Your task to perform on an android device: check the backup settings in the google photos Image 0: 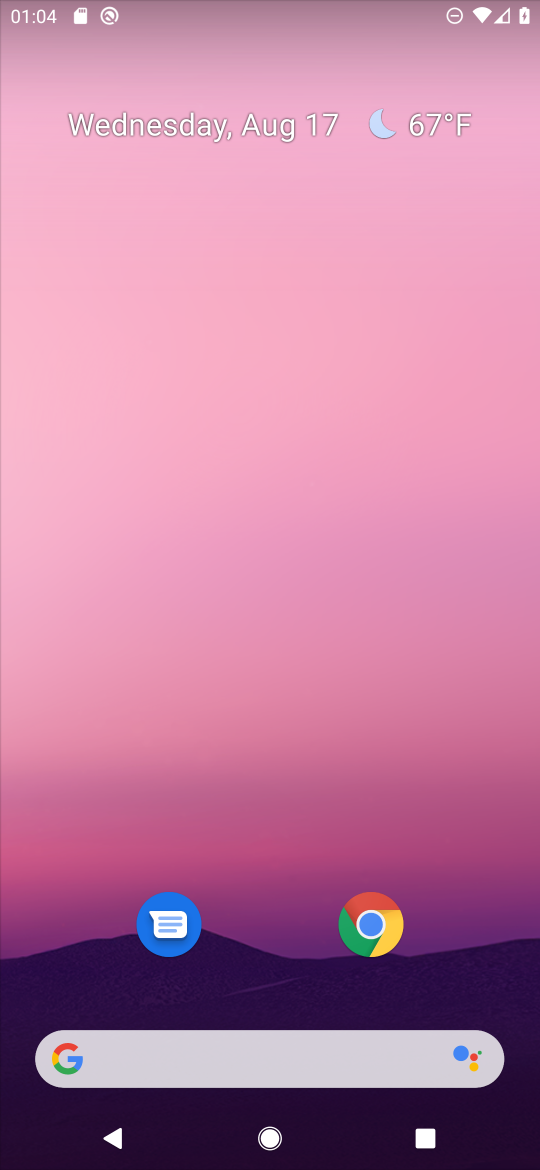
Step 0: drag from (311, 990) to (325, 136)
Your task to perform on an android device: check the backup settings in the google photos Image 1: 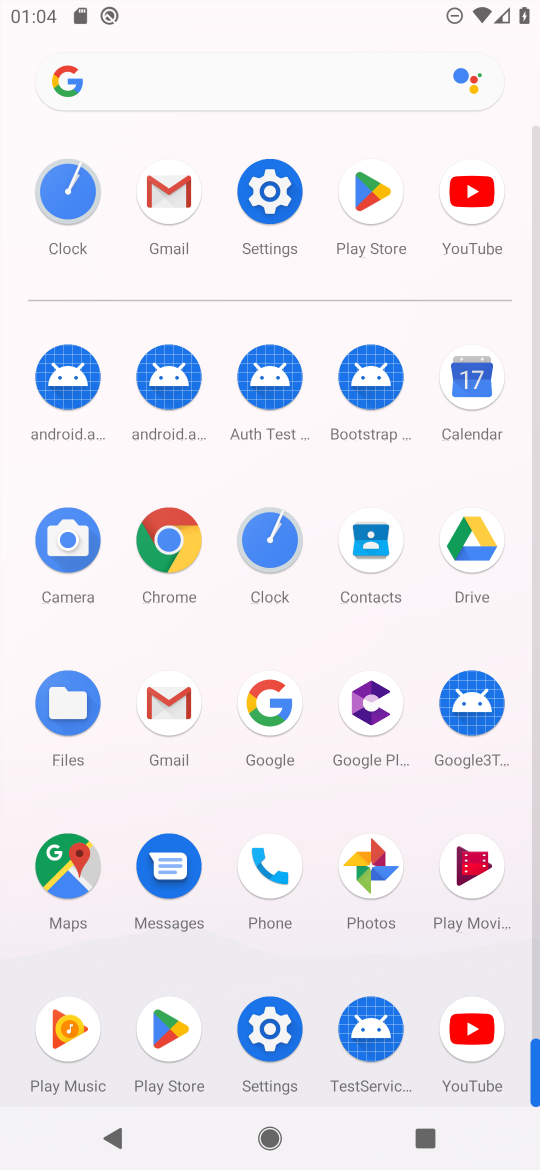
Step 1: click (383, 865)
Your task to perform on an android device: check the backup settings in the google photos Image 2: 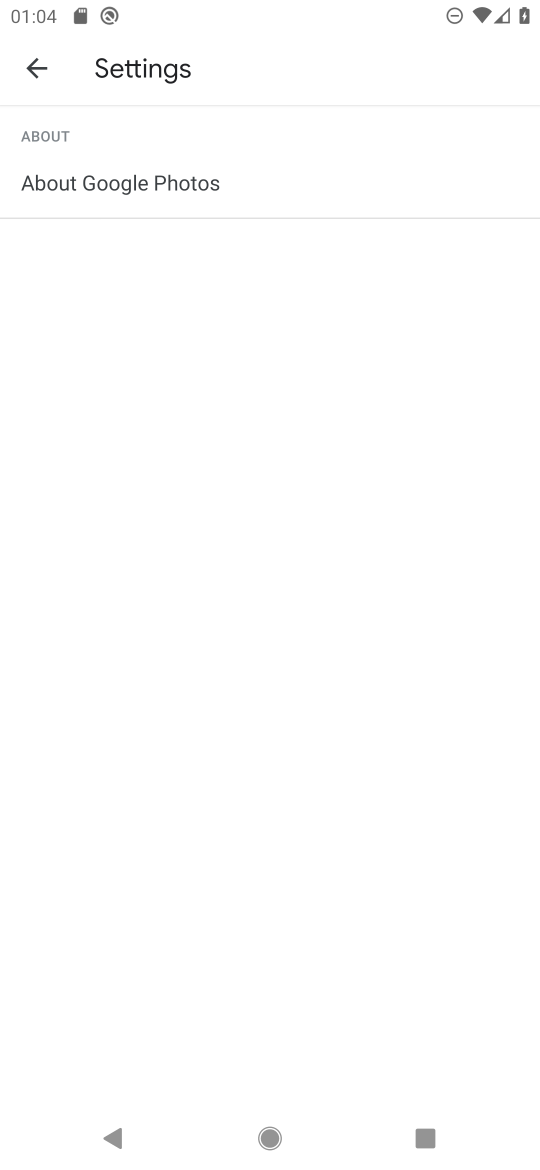
Step 2: click (45, 76)
Your task to perform on an android device: check the backup settings in the google photos Image 3: 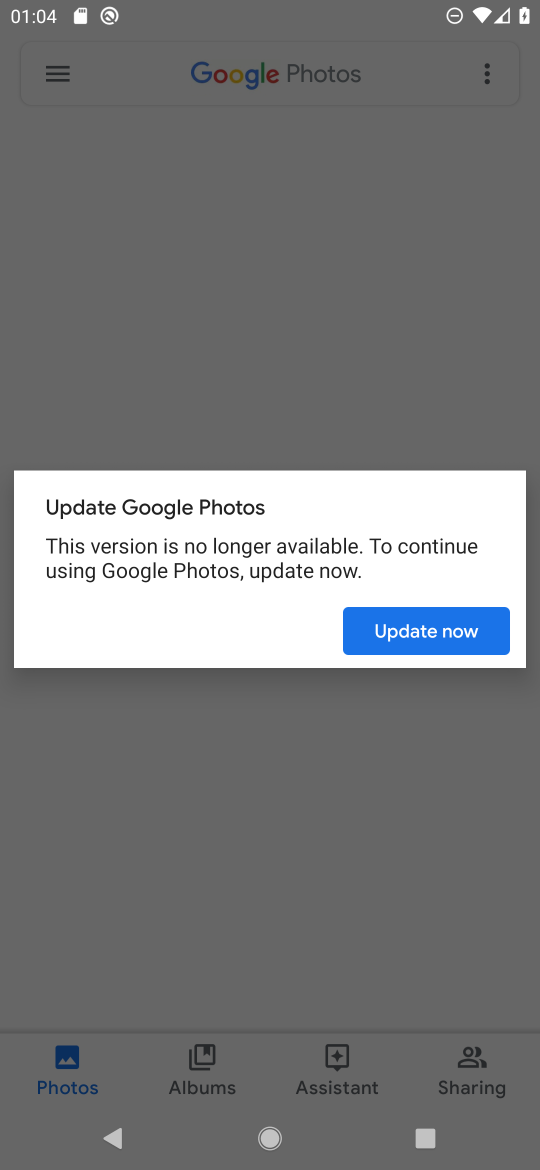
Step 3: click (494, 631)
Your task to perform on an android device: check the backup settings in the google photos Image 4: 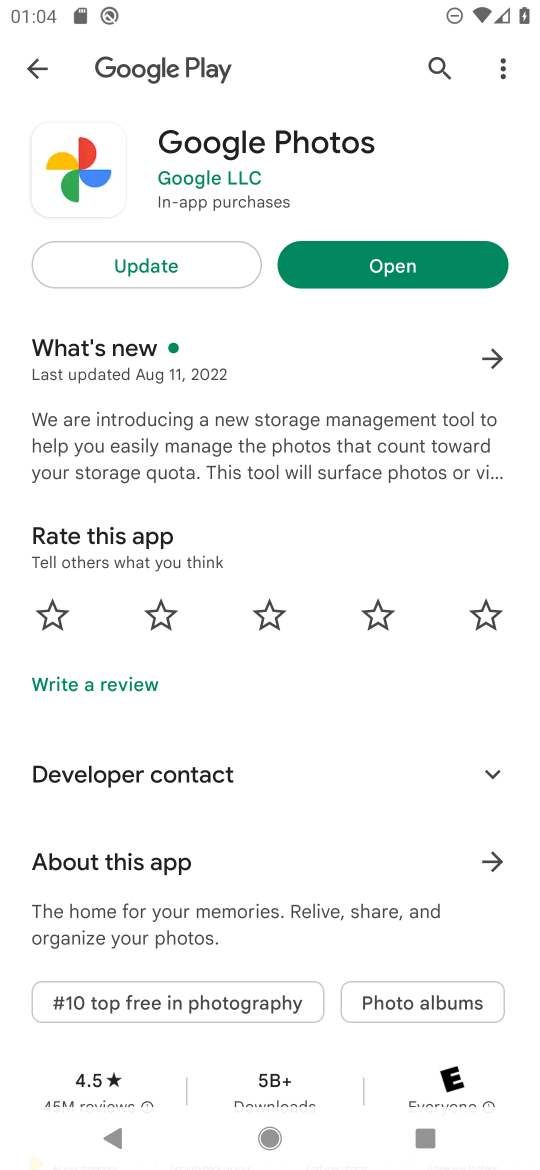
Step 4: click (400, 266)
Your task to perform on an android device: check the backup settings in the google photos Image 5: 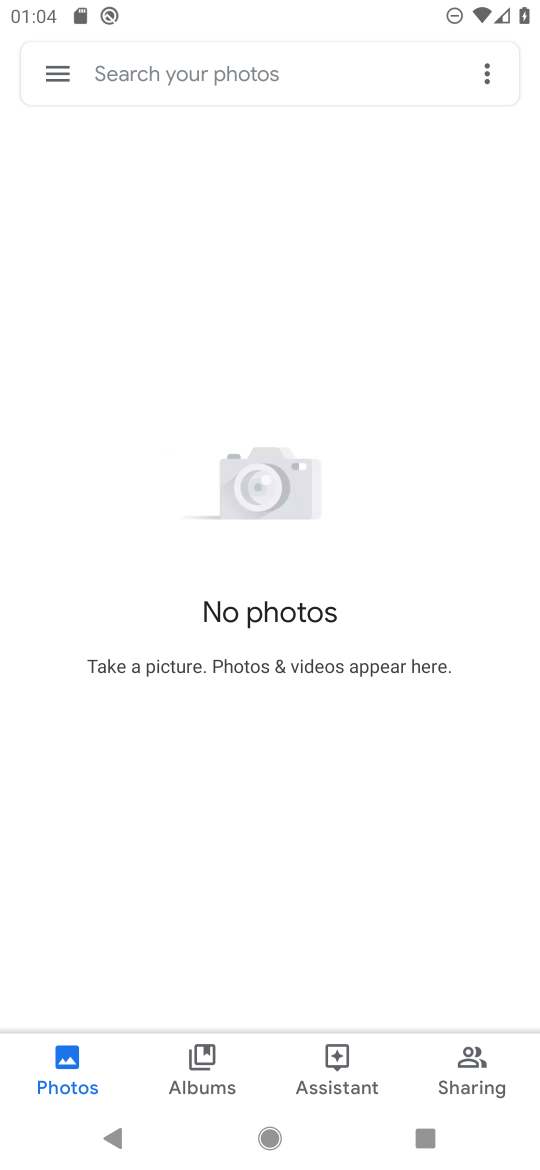
Step 5: click (49, 75)
Your task to perform on an android device: check the backup settings in the google photos Image 6: 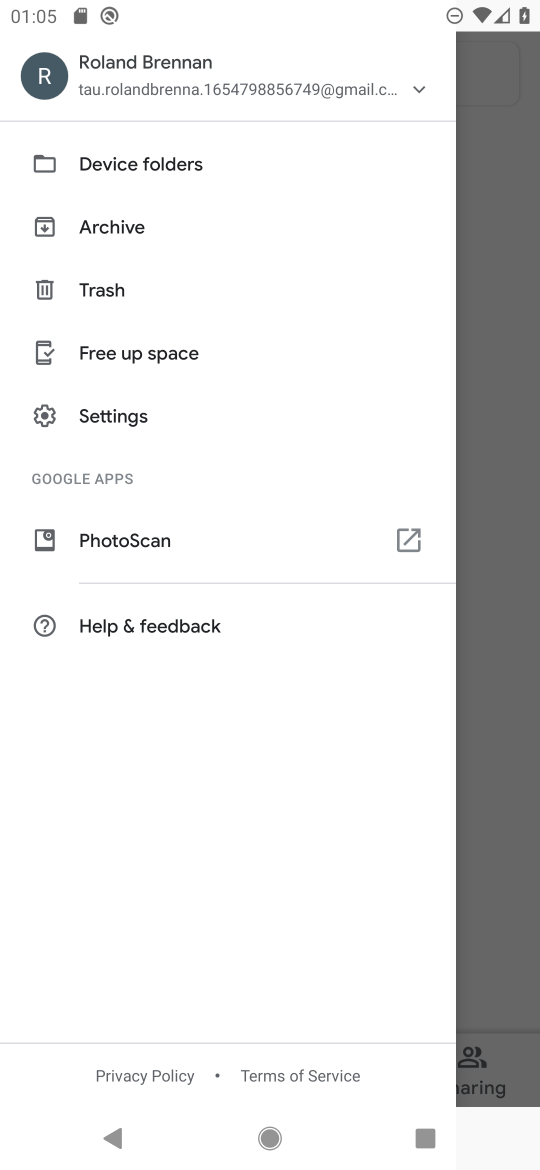
Step 6: click (237, 419)
Your task to perform on an android device: check the backup settings in the google photos Image 7: 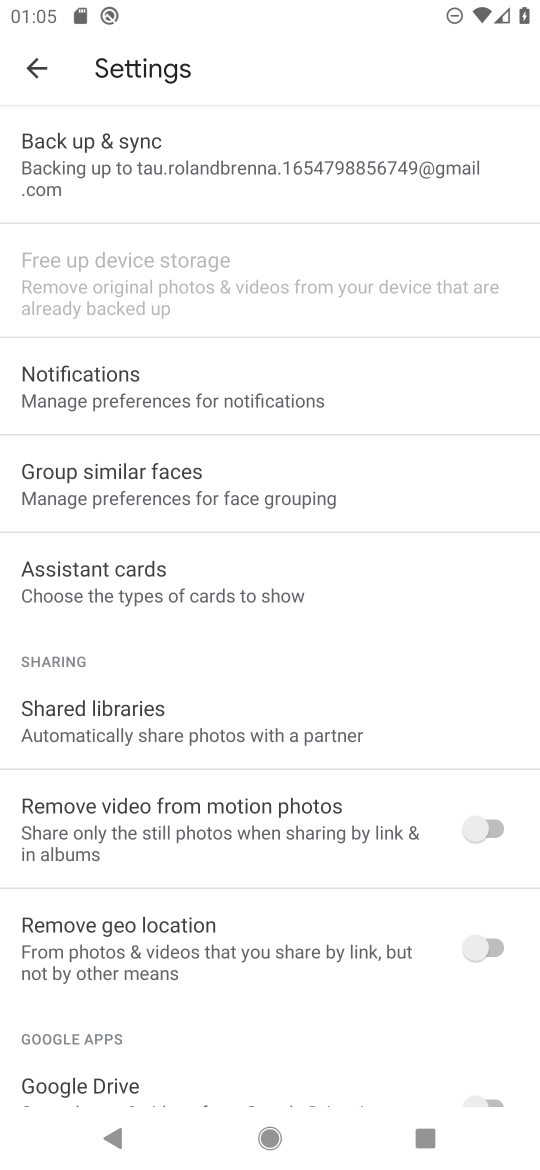
Step 7: click (155, 413)
Your task to perform on an android device: check the backup settings in the google photos Image 8: 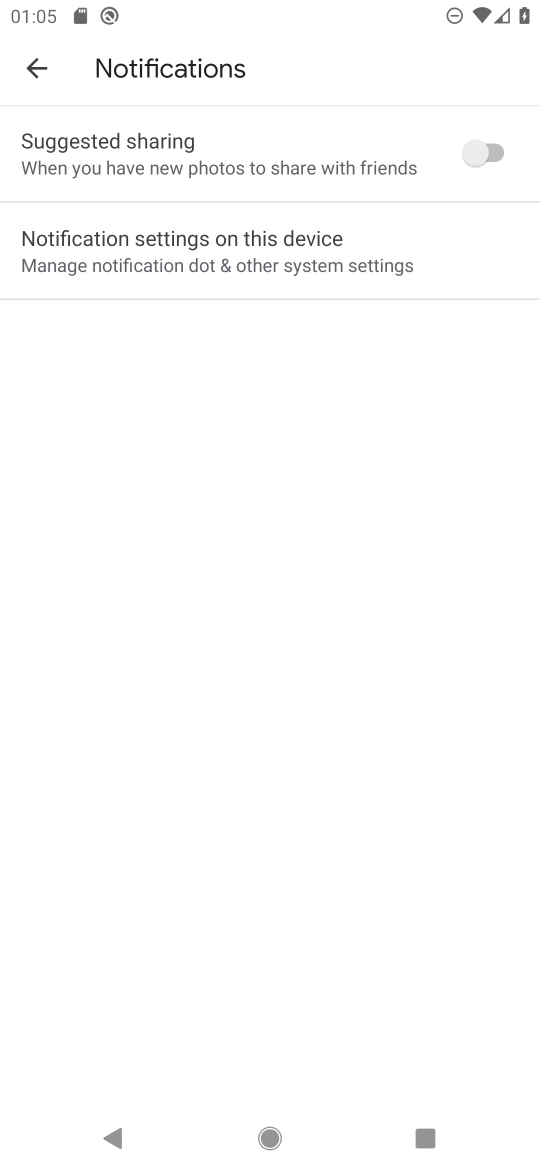
Step 8: click (17, 70)
Your task to perform on an android device: check the backup settings in the google photos Image 9: 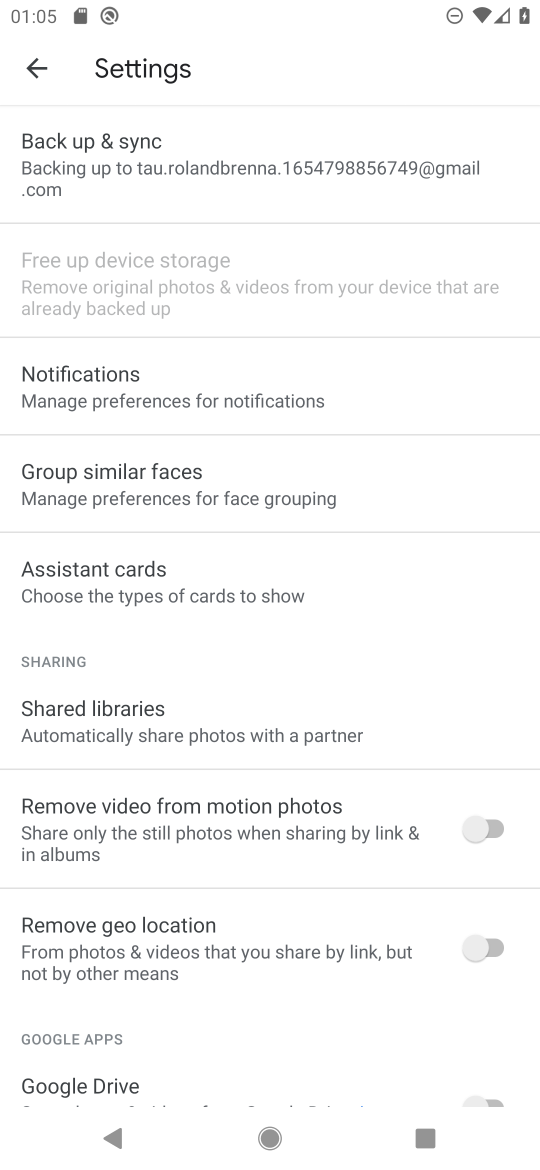
Step 9: click (162, 159)
Your task to perform on an android device: check the backup settings in the google photos Image 10: 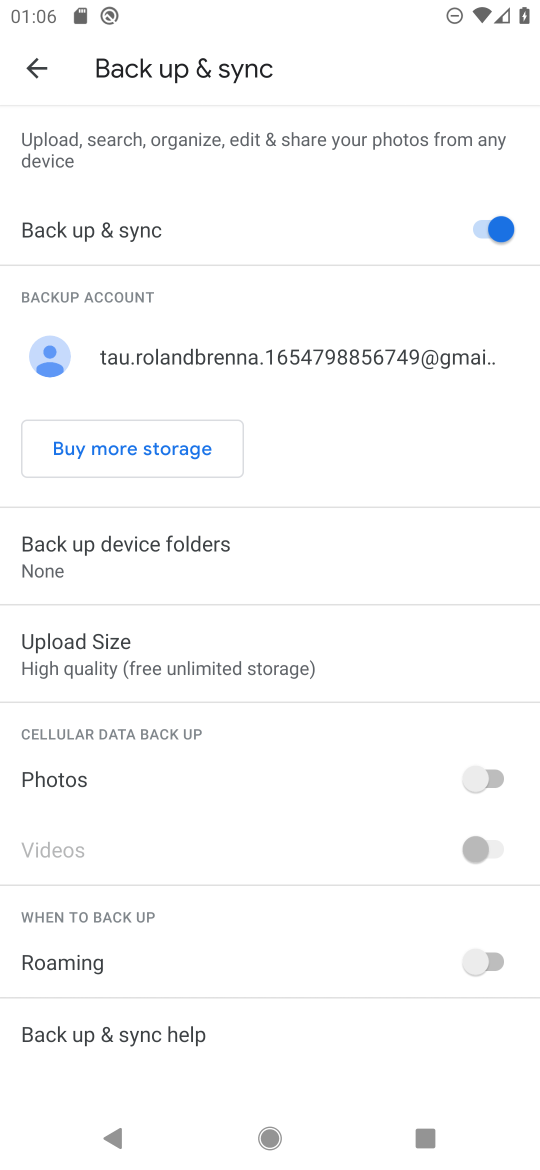
Step 10: task complete